Your task to perform on an android device: Go to Amazon Image 0: 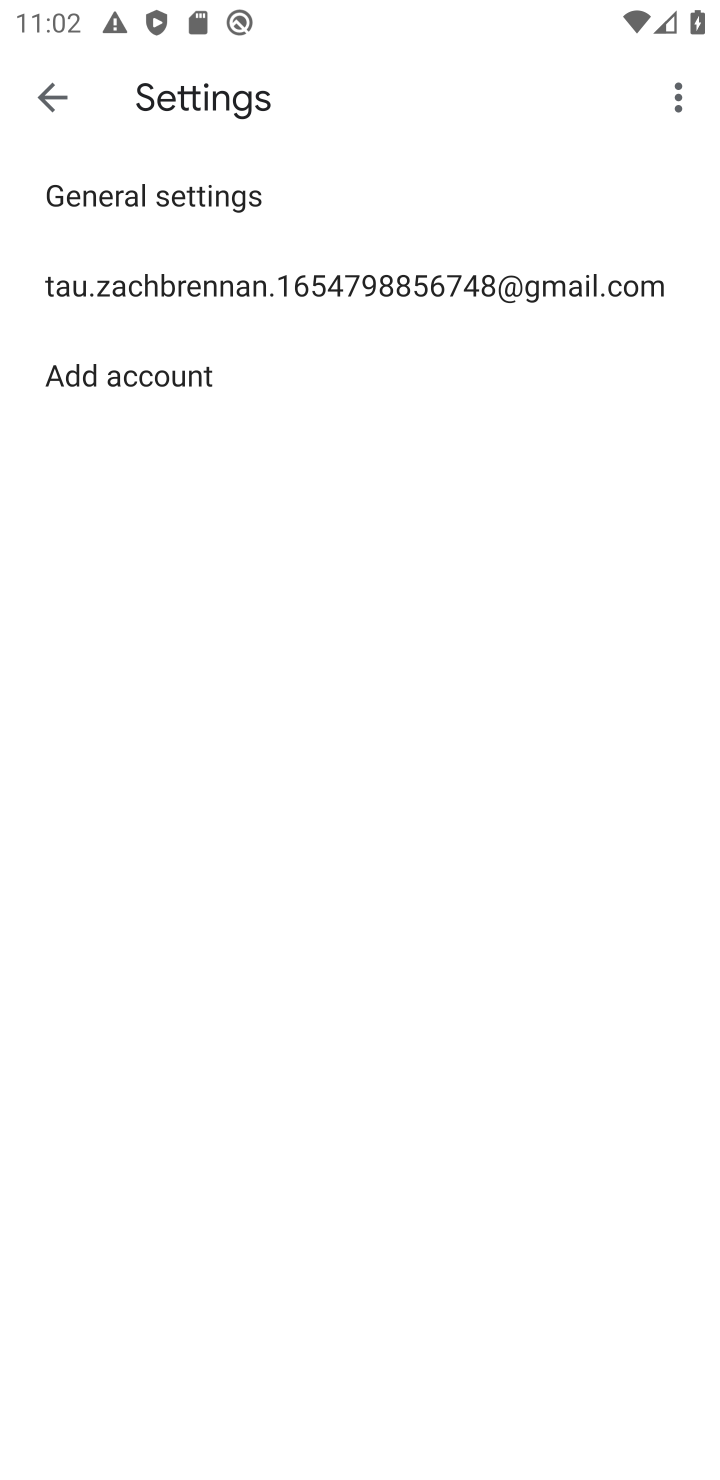
Step 0: press home button
Your task to perform on an android device: Go to Amazon Image 1: 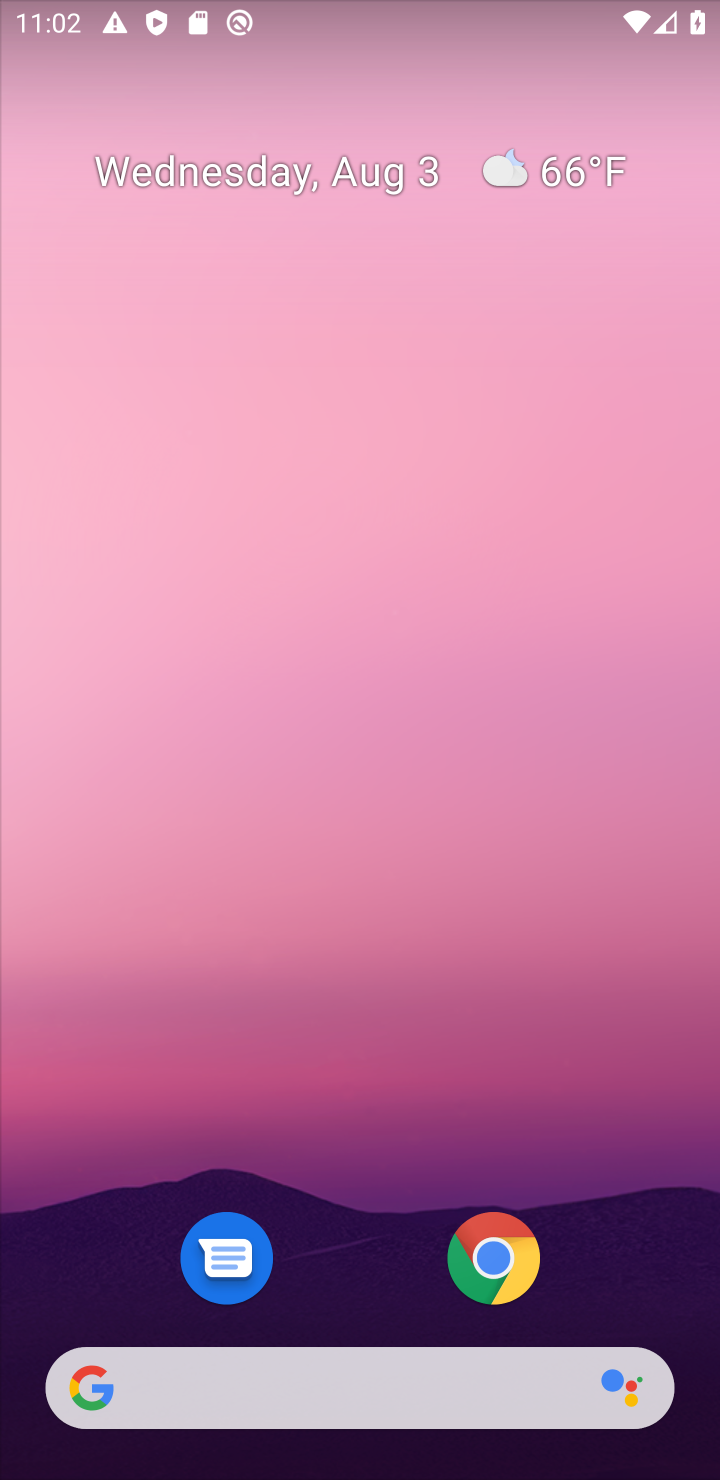
Step 1: click (492, 1244)
Your task to perform on an android device: Go to Amazon Image 2: 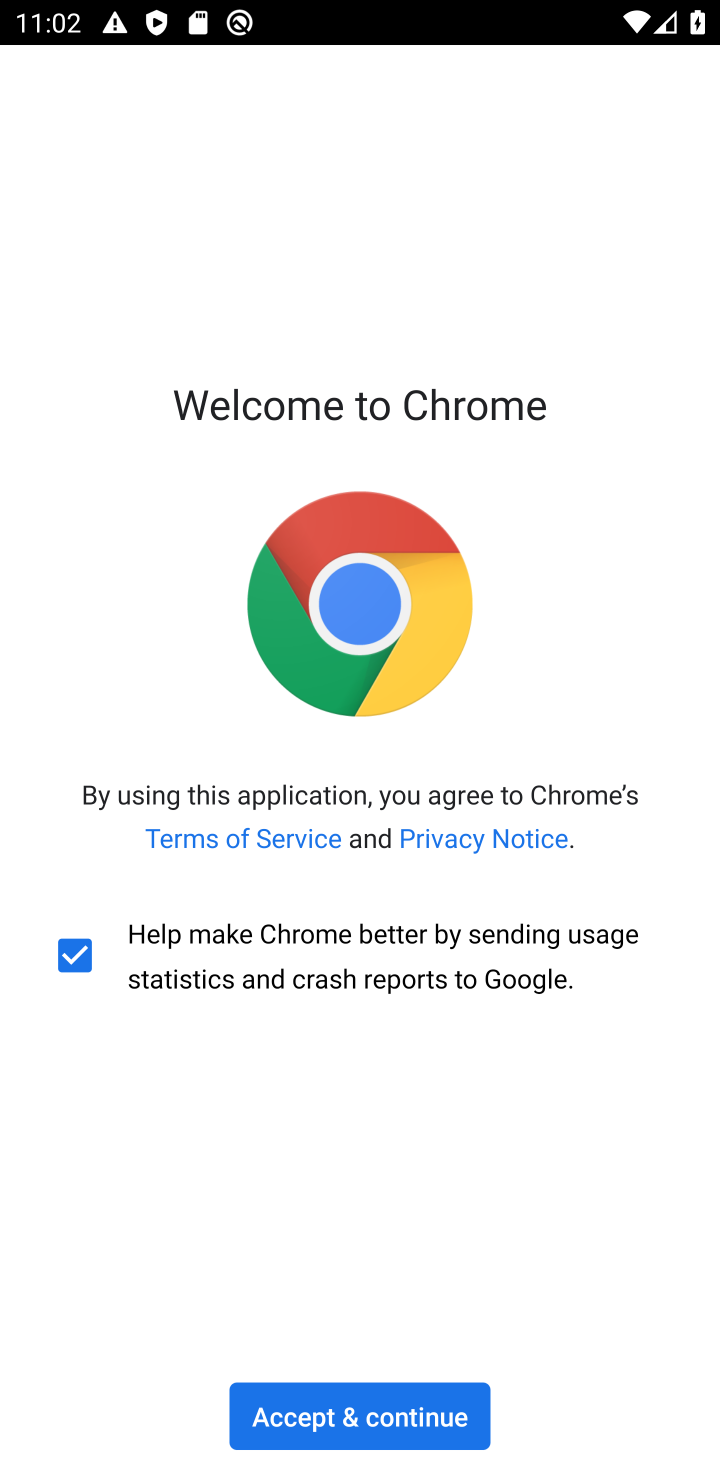
Step 2: click (350, 1407)
Your task to perform on an android device: Go to Amazon Image 3: 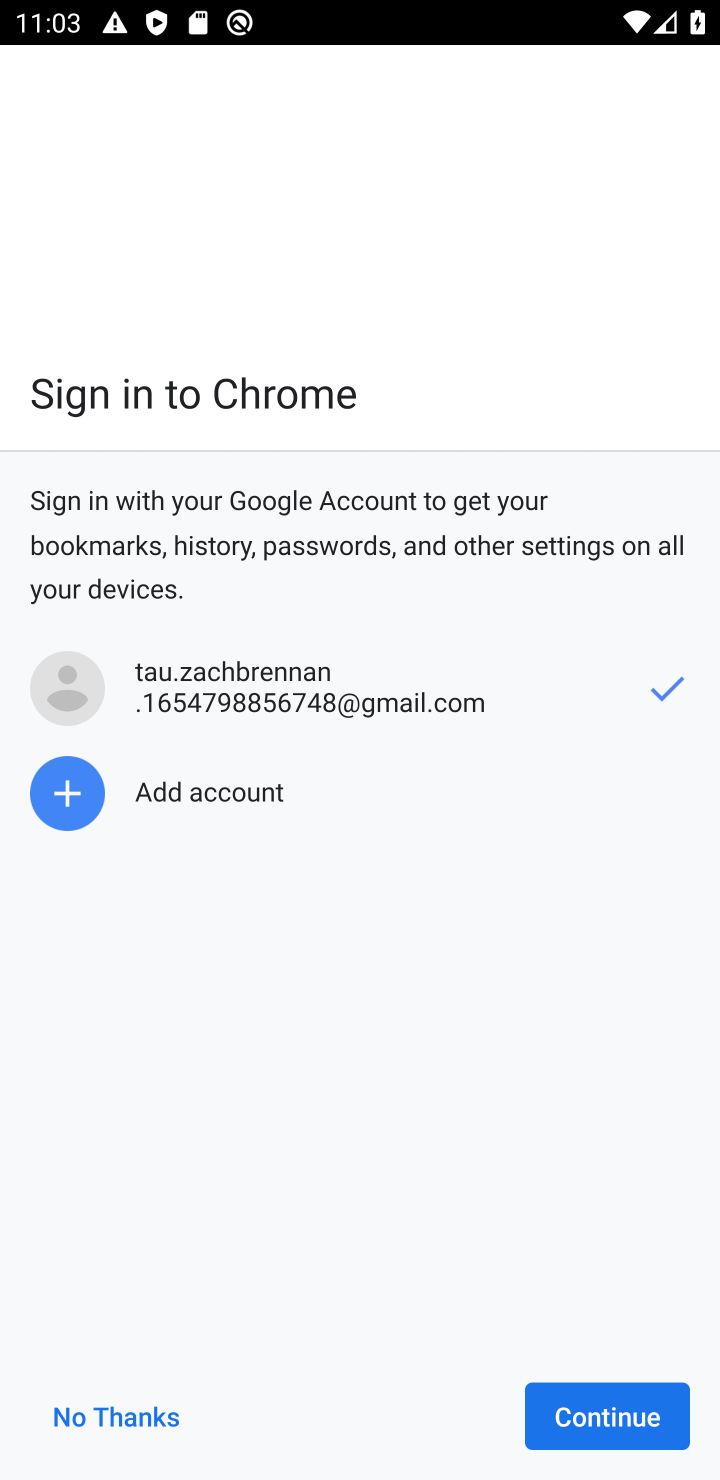
Step 3: click (584, 1418)
Your task to perform on an android device: Go to Amazon Image 4: 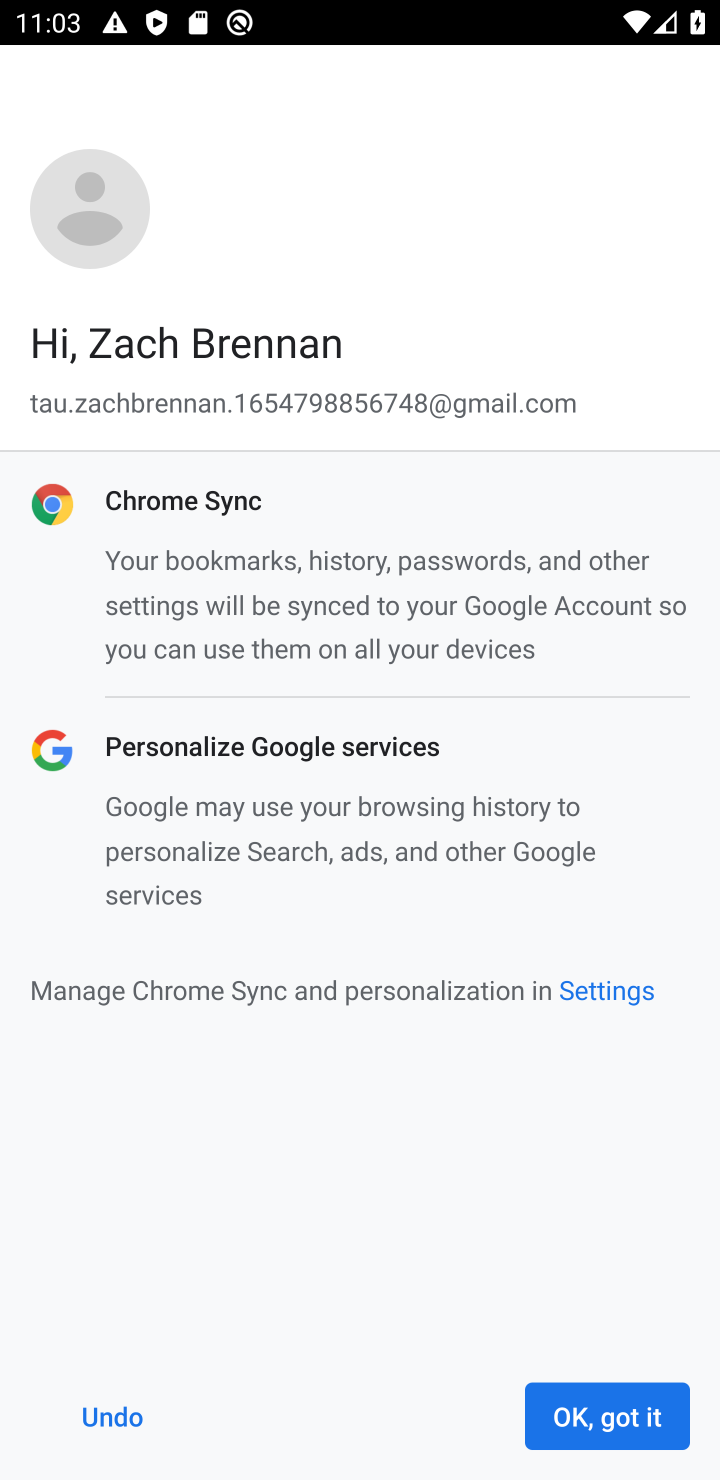
Step 4: click (615, 1416)
Your task to perform on an android device: Go to Amazon Image 5: 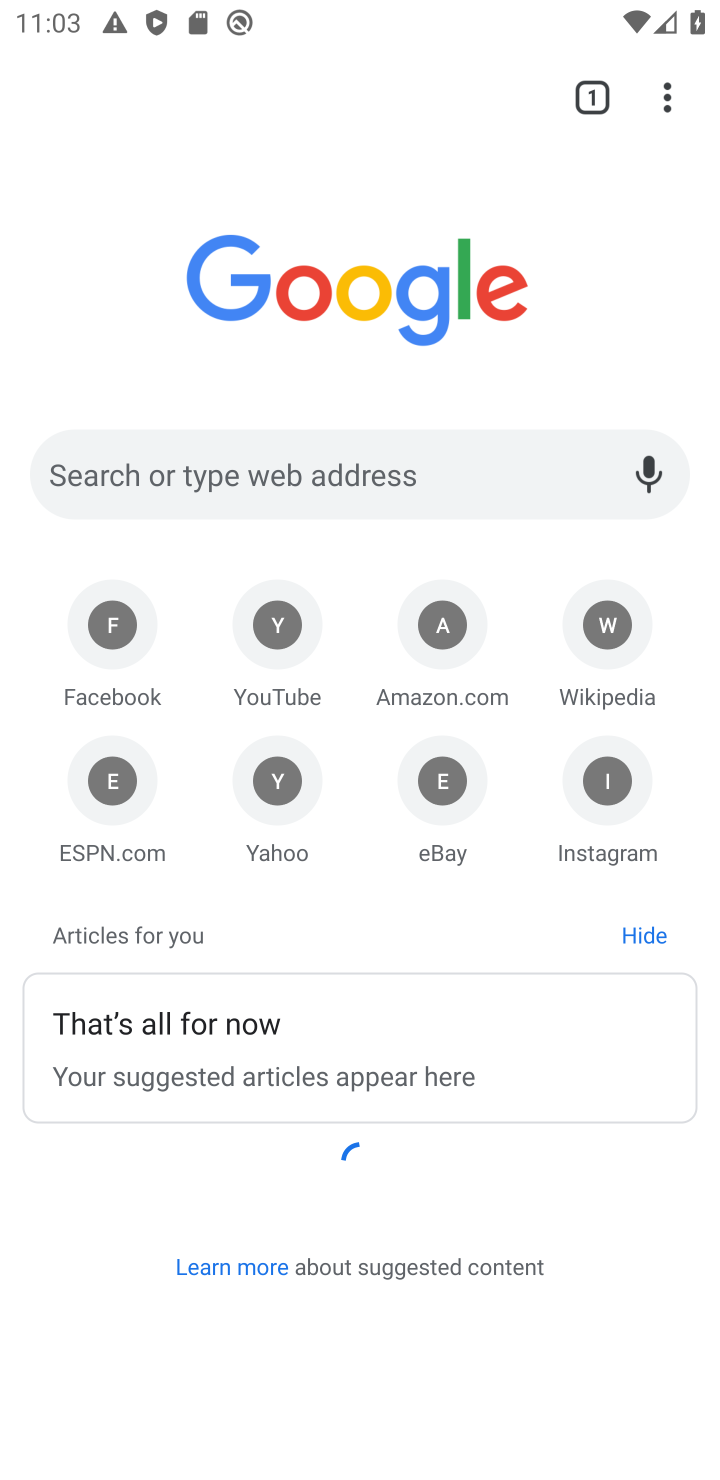
Step 5: click (633, 1416)
Your task to perform on an android device: Go to Amazon Image 6: 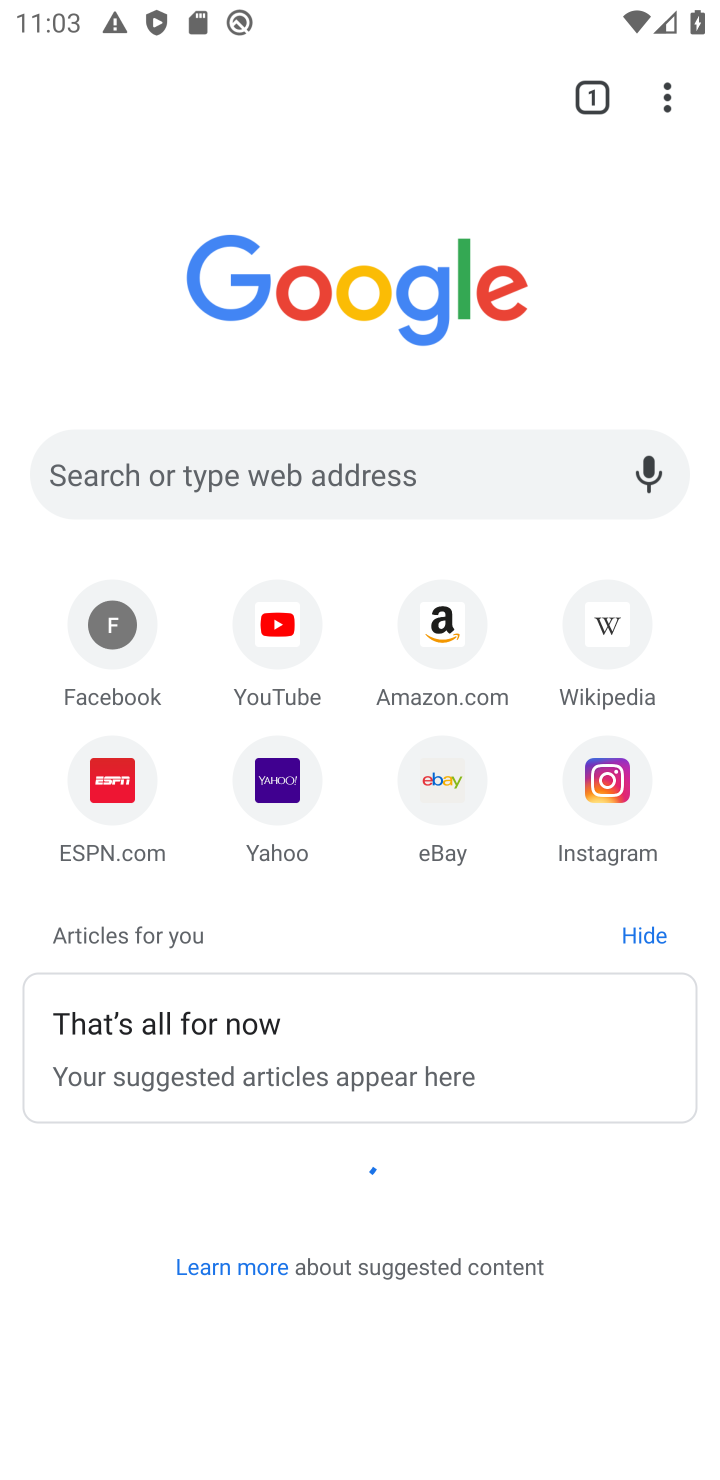
Step 6: click (434, 621)
Your task to perform on an android device: Go to Amazon Image 7: 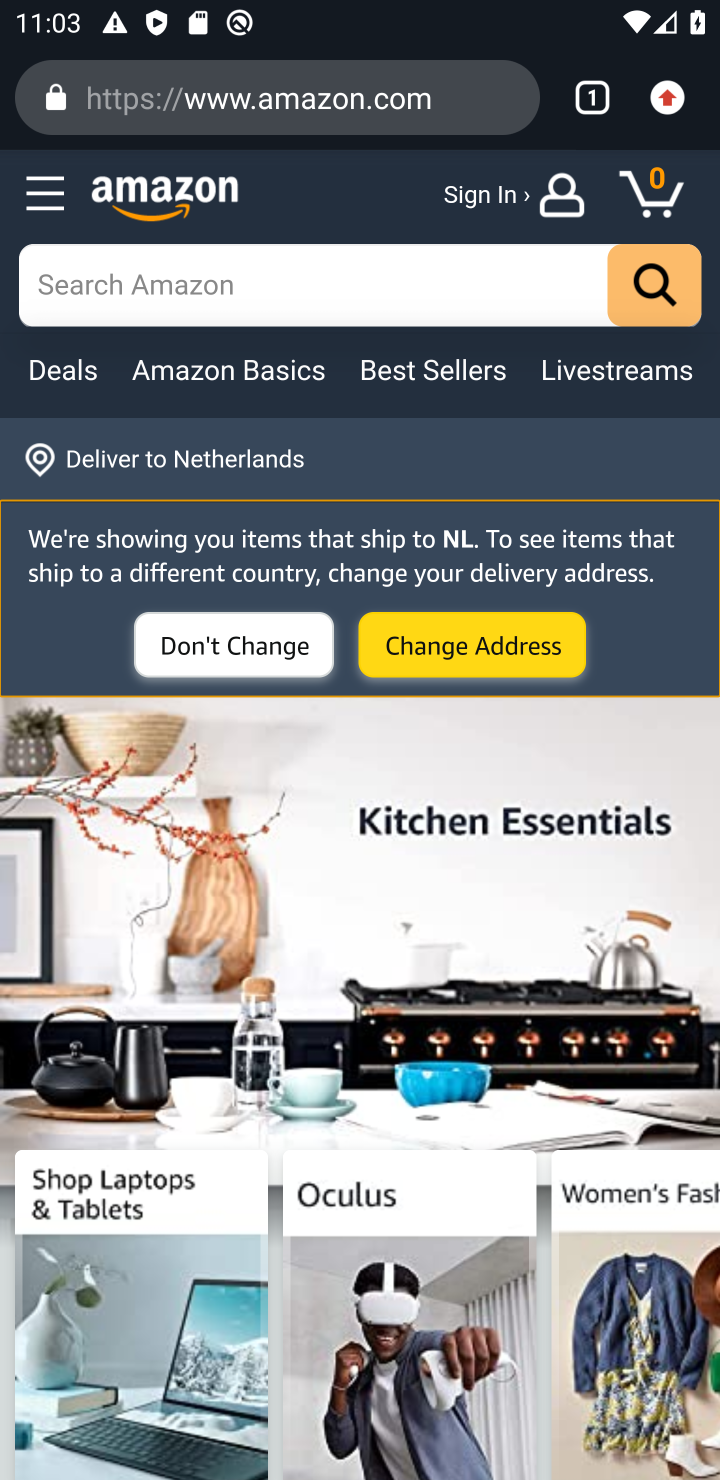
Step 7: task complete